Your task to perform on an android device: set default search engine in the chrome app Image 0: 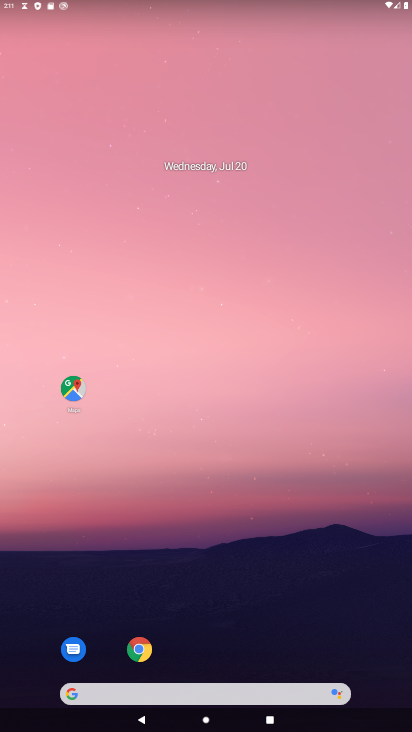
Step 0: click (145, 647)
Your task to perform on an android device: set default search engine in the chrome app Image 1: 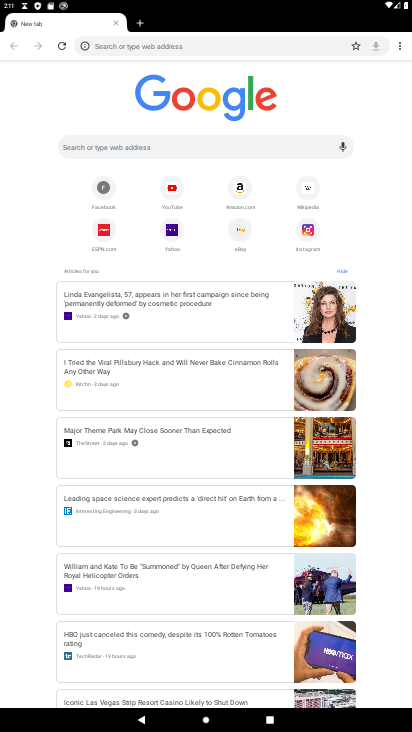
Step 1: click (401, 46)
Your task to perform on an android device: set default search engine in the chrome app Image 2: 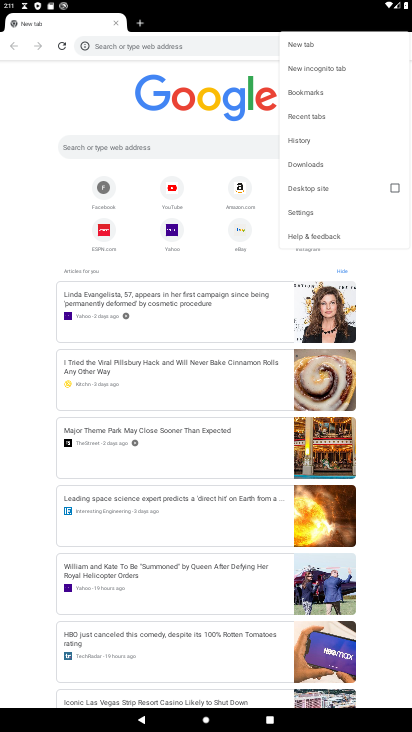
Step 2: click (300, 215)
Your task to perform on an android device: set default search engine in the chrome app Image 3: 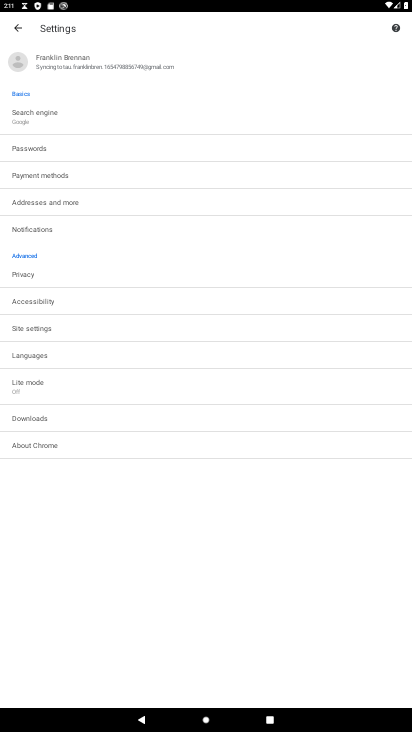
Step 3: click (63, 126)
Your task to perform on an android device: set default search engine in the chrome app Image 4: 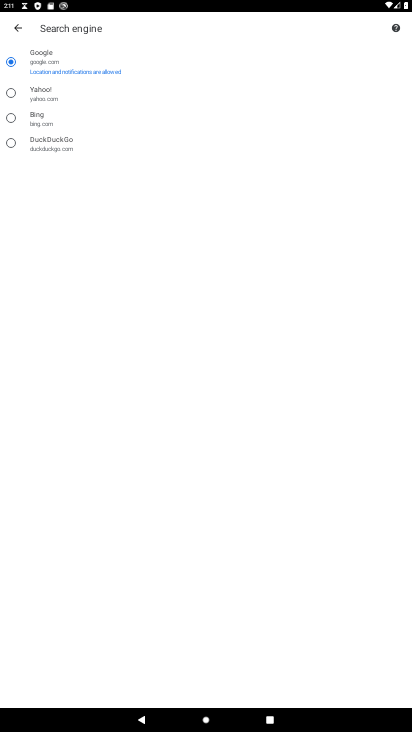
Step 4: task complete